Your task to perform on an android device: Do I have any events today? Image 0: 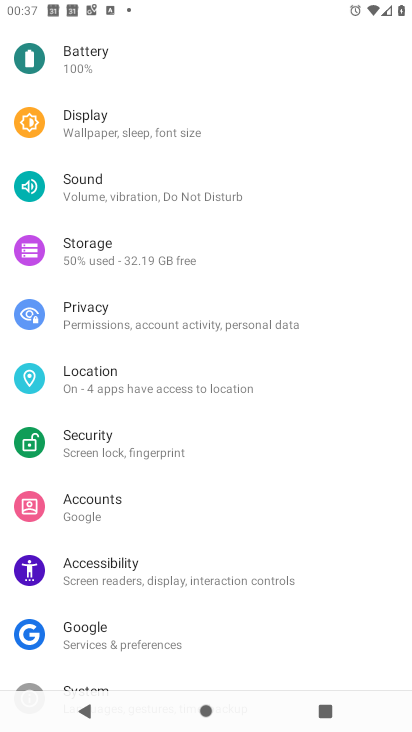
Step 0: press home button
Your task to perform on an android device: Do I have any events today? Image 1: 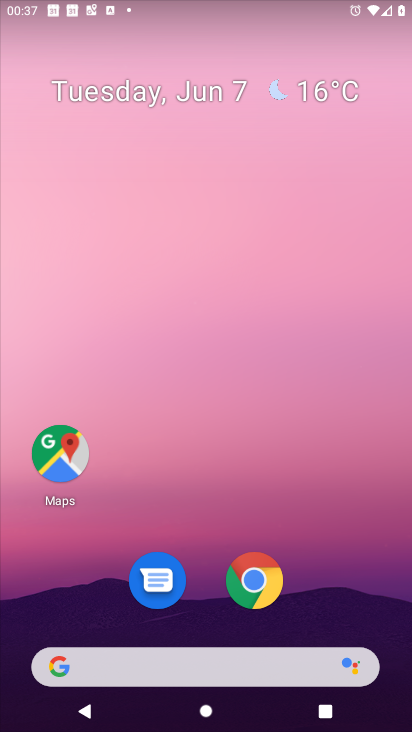
Step 1: drag from (348, 586) to (329, 12)
Your task to perform on an android device: Do I have any events today? Image 2: 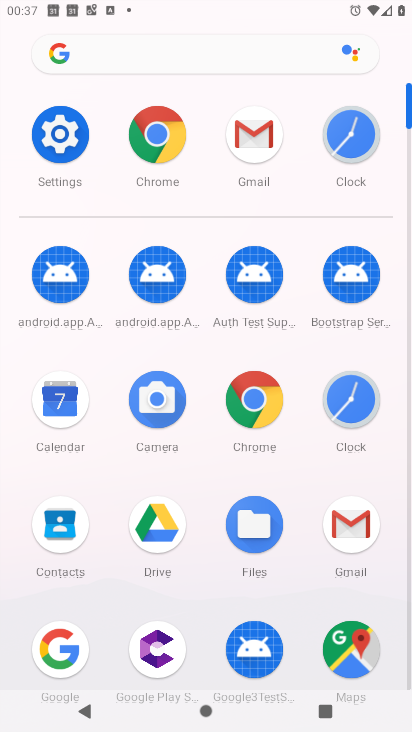
Step 2: click (64, 388)
Your task to perform on an android device: Do I have any events today? Image 3: 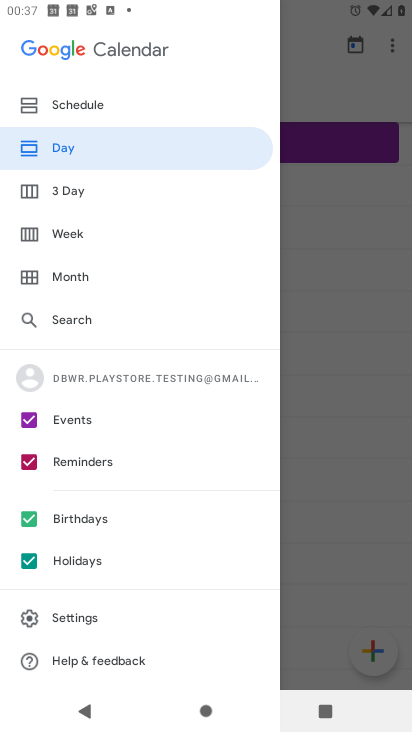
Step 3: click (74, 152)
Your task to perform on an android device: Do I have any events today? Image 4: 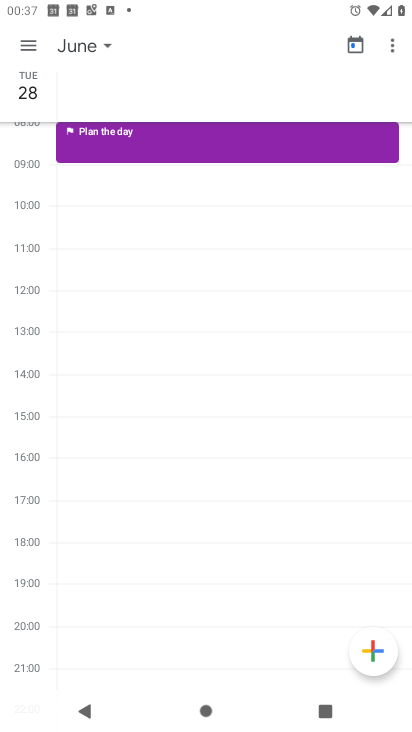
Step 4: click (72, 38)
Your task to perform on an android device: Do I have any events today? Image 5: 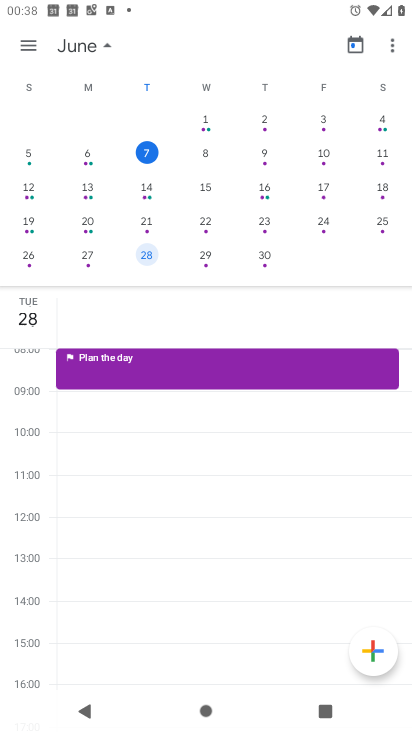
Step 5: task complete